Your task to perform on an android device: read, delete, or share a saved page in the chrome app Image 0: 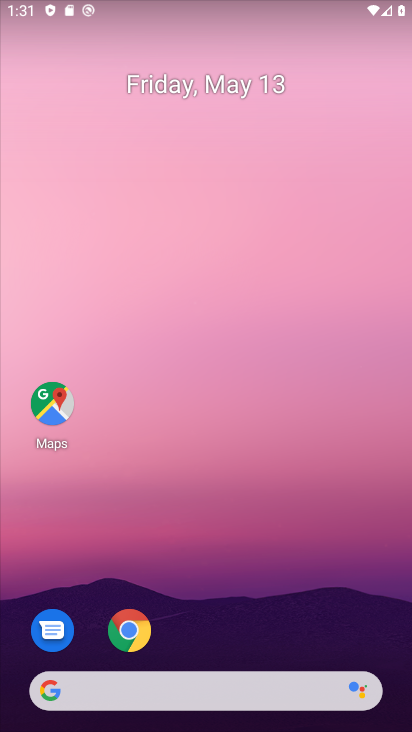
Step 0: drag from (323, 618) to (322, 146)
Your task to perform on an android device: read, delete, or share a saved page in the chrome app Image 1: 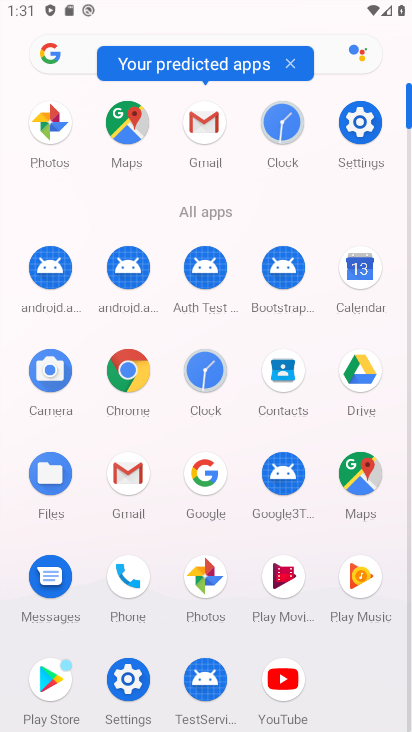
Step 1: click (132, 377)
Your task to perform on an android device: read, delete, or share a saved page in the chrome app Image 2: 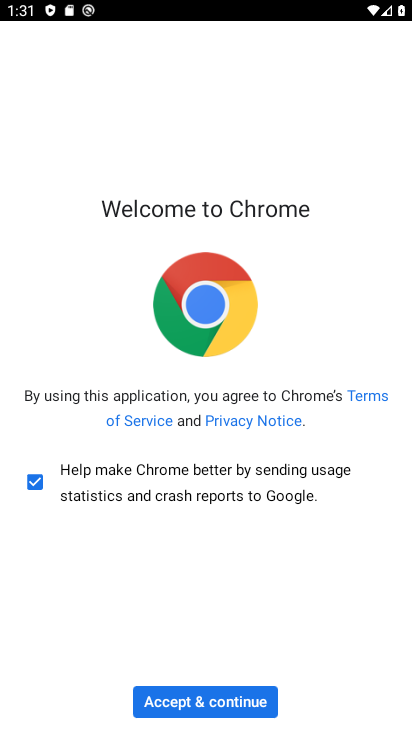
Step 2: click (208, 696)
Your task to perform on an android device: read, delete, or share a saved page in the chrome app Image 3: 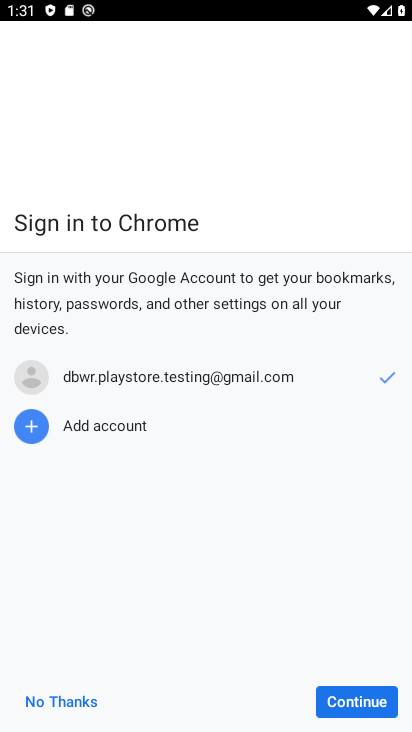
Step 3: click (367, 697)
Your task to perform on an android device: read, delete, or share a saved page in the chrome app Image 4: 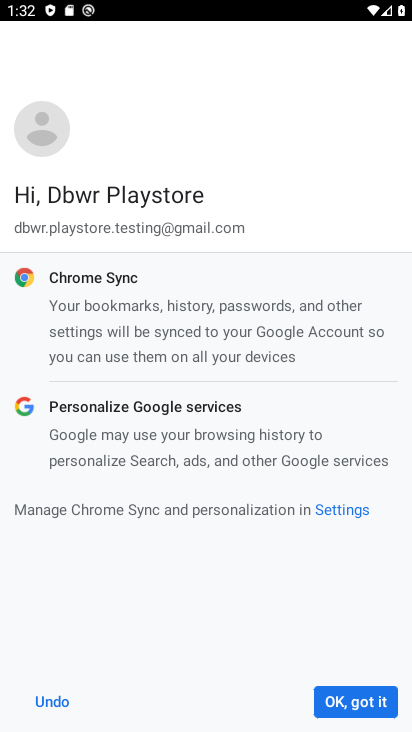
Step 4: click (347, 708)
Your task to perform on an android device: read, delete, or share a saved page in the chrome app Image 5: 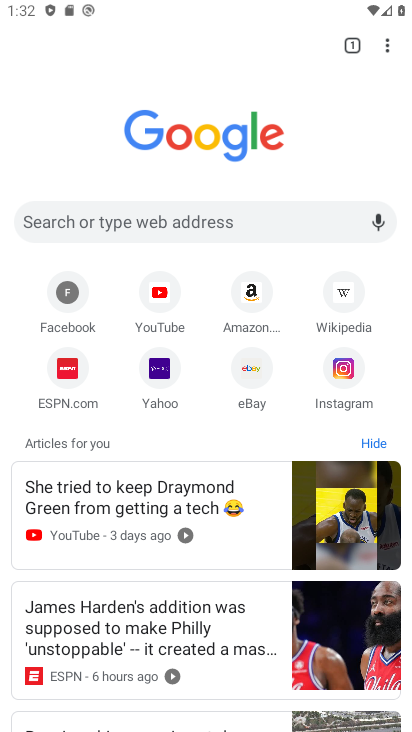
Step 5: task complete